Your task to perform on an android device: Open Yahoo.com Image 0: 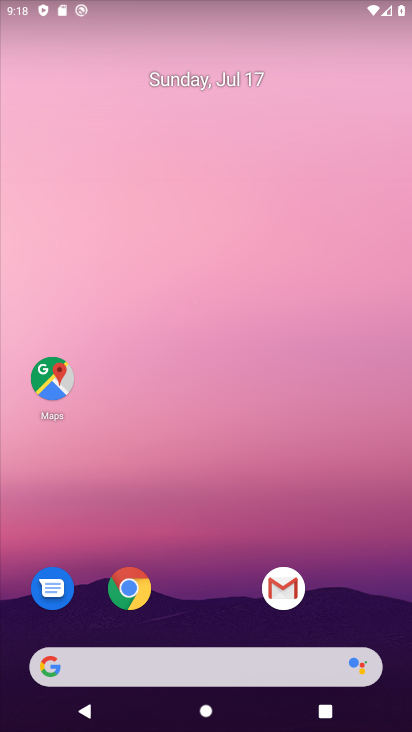
Step 0: click (141, 596)
Your task to perform on an android device: Open Yahoo.com Image 1: 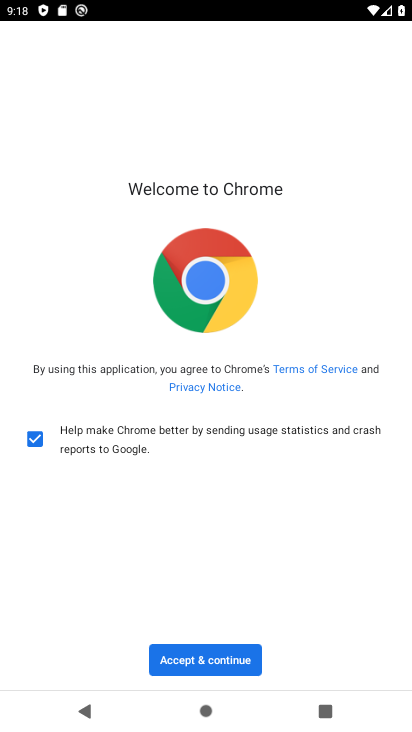
Step 1: click (204, 658)
Your task to perform on an android device: Open Yahoo.com Image 2: 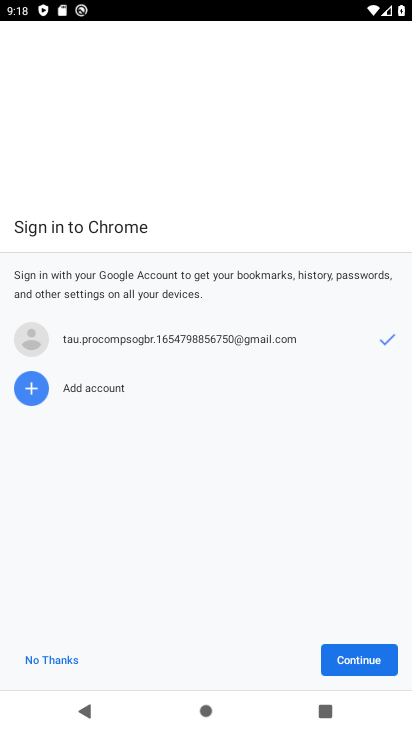
Step 2: click (319, 657)
Your task to perform on an android device: Open Yahoo.com Image 3: 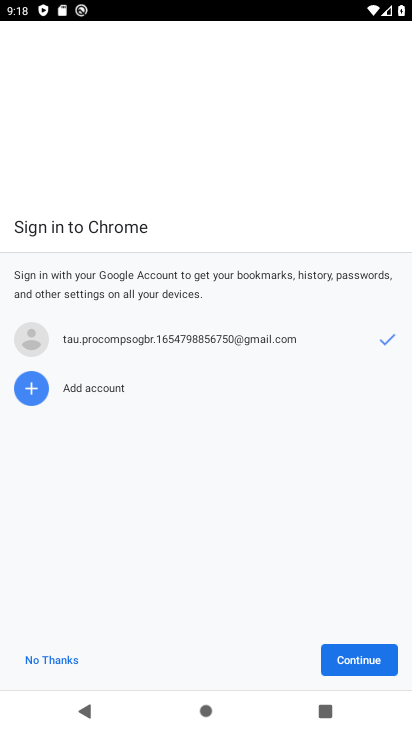
Step 3: click (338, 646)
Your task to perform on an android device: Open Yahoo.com Image 4: 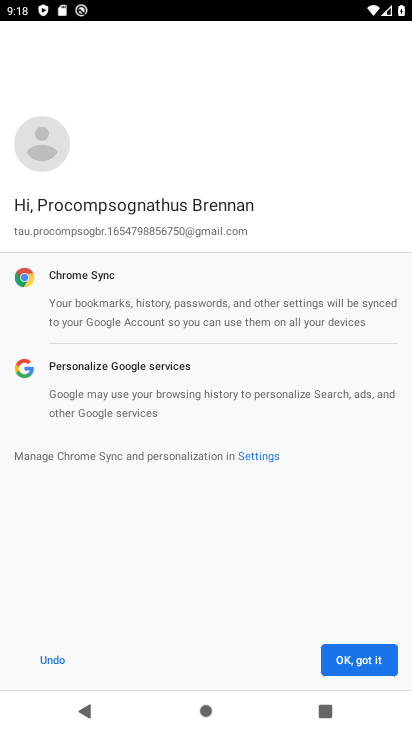
Step 4: click (339, 646)
Your task to perform on an android device: Open Yahoo.com Image 5: 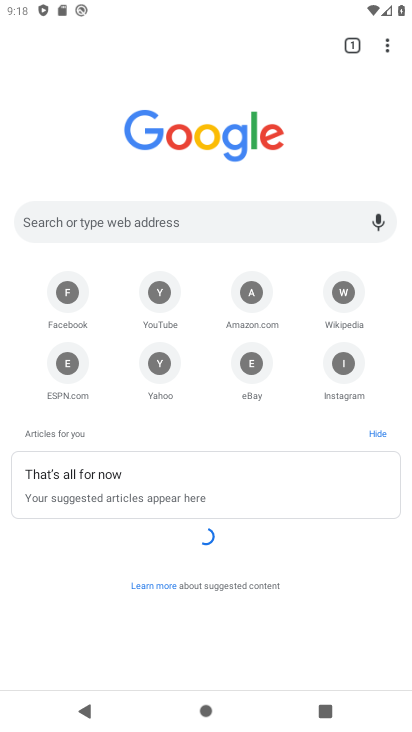
Step 5: click (159, 371)
Your task to perform on an android device: Open Yahoo.com Image 6: 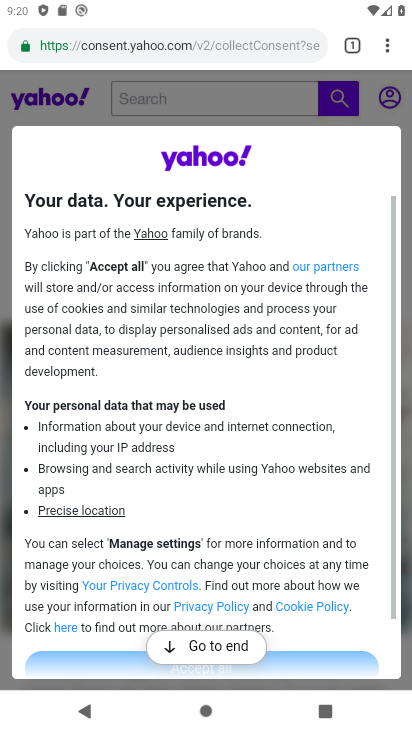
Step 6: task complete